Your task to perform on an android device: Go to ESPN.com Image 0: 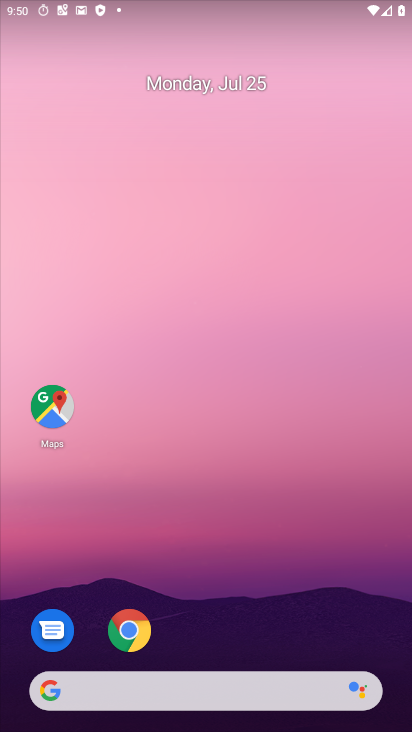
Step 0: press home button
Your task to perform on an android device: Go to ESPN.com Image 1: 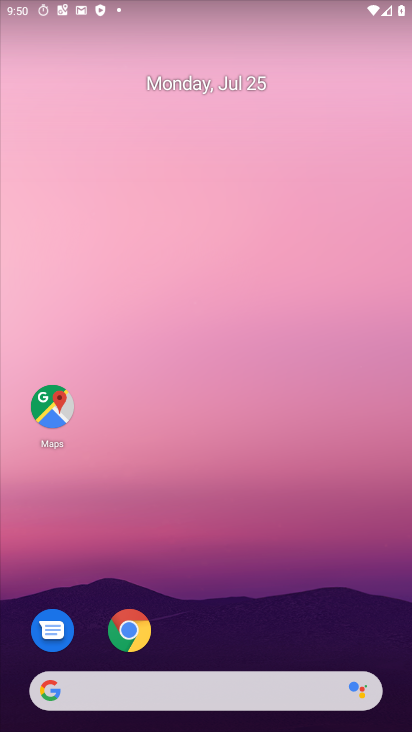
Step 1: click (52, 681)
Your task to perform on an android device: Go to ESPN.com Image 2: 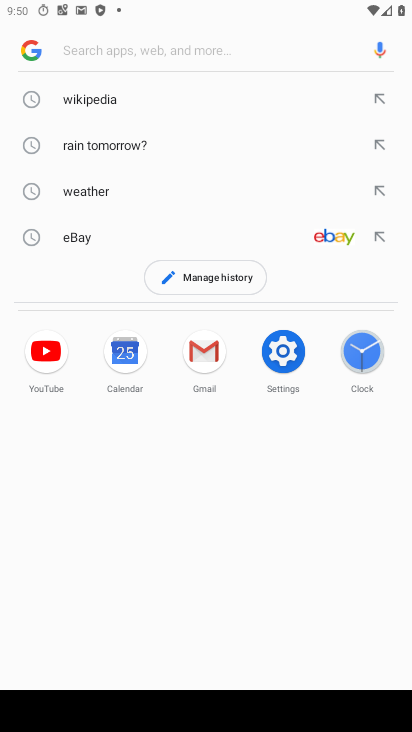
Step 2: type "ESPN.com"
Your task to perform on an android device: Go to ESPN.com Image 3: 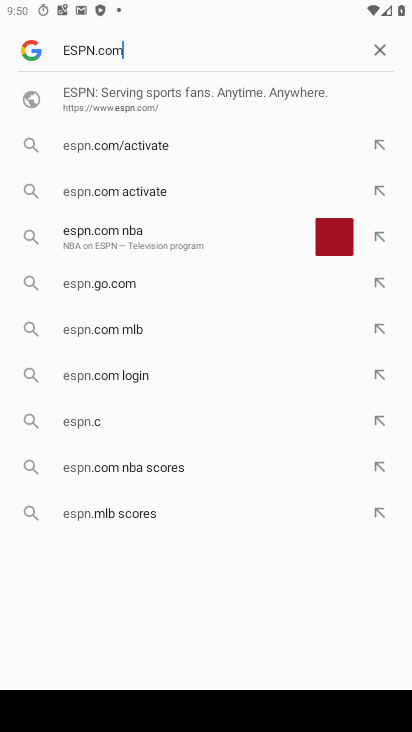
Step 3: press enter
Your task to perform on an android device: Go to ESPN.com Image 4: 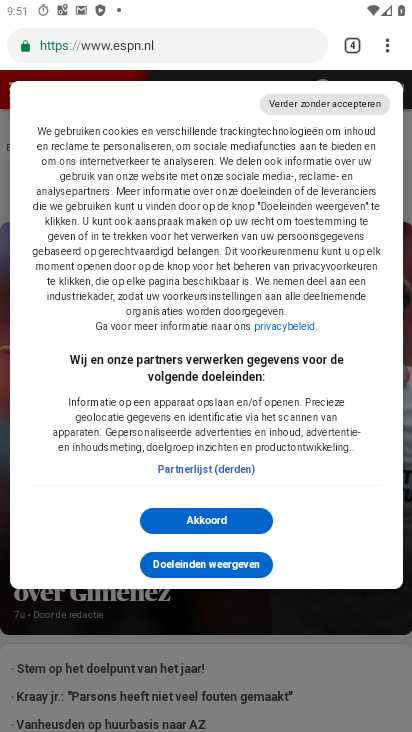
Step 4: click (247, 519)
Your task to perform on an android device: Go to ESPN.com Image 5: 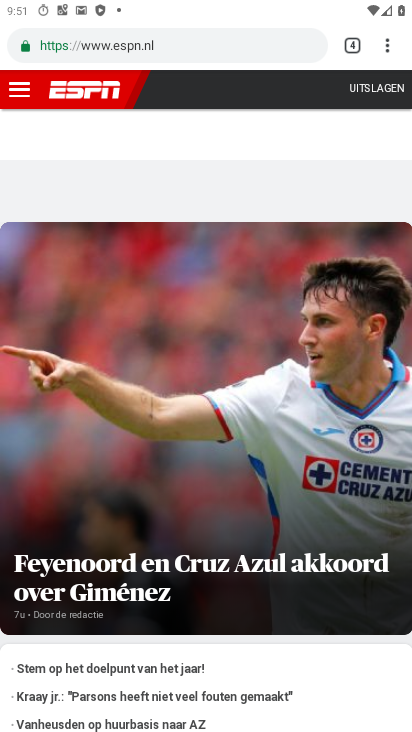
Step 5: task complete